Your task to perform on an android device: find photos in the google photos app Image 0: 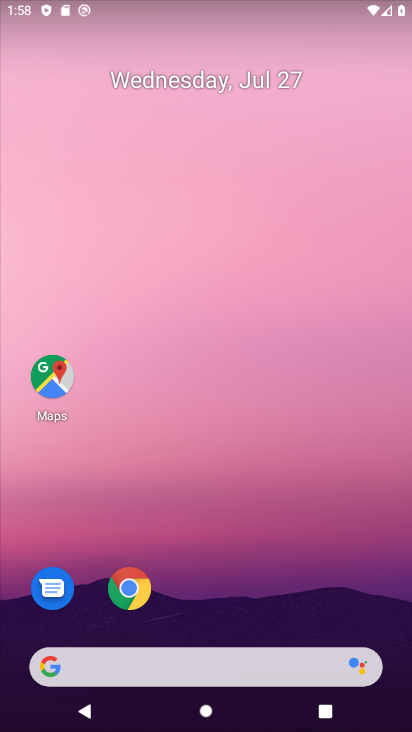
Step 0: drag from (226, 611) to (230, 311)
Your task to perform on an android device: find photos in the google photos app Image 1: 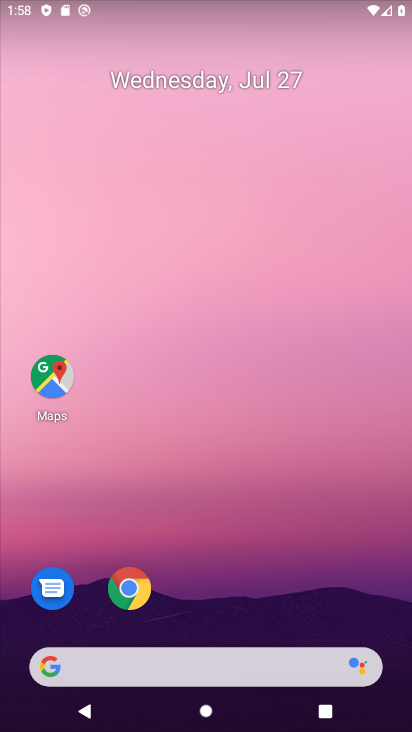
Step 1: drag from (208, 597) to (206, 161)
Your task to perform on an android device: find photos in the google photos app Image 2: 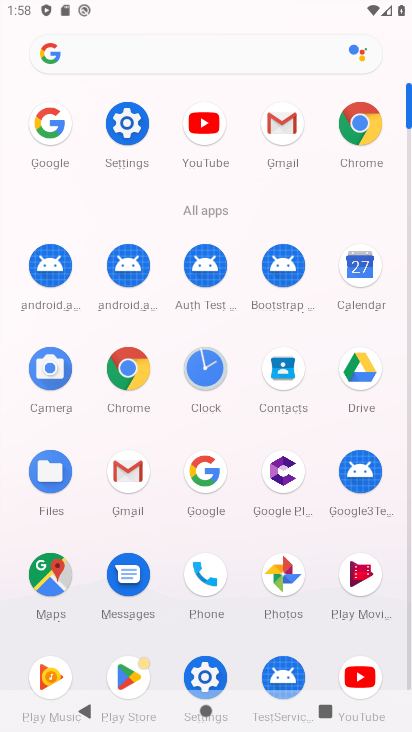
Step 2: click (279, 588)
Your task to perform on an android device: find photos in the google photos app Image 3: 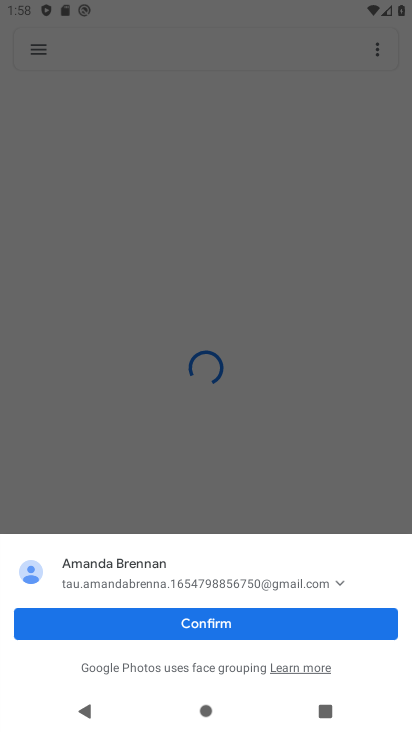
Step 3: click (116, 59)
Your task to perform on an android device: find photos in the google photos app Image 4: 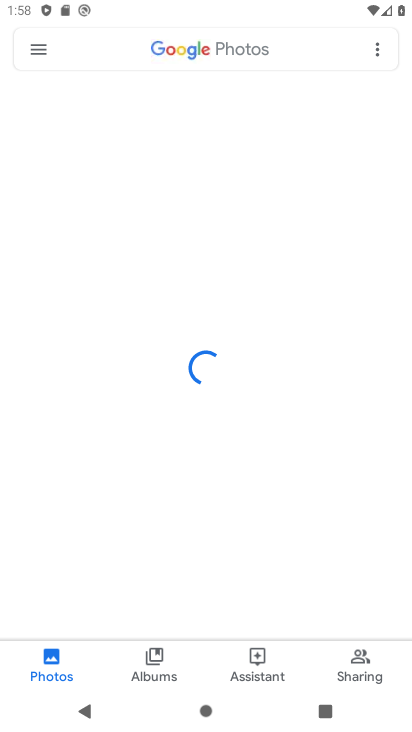
Step 4: click (220, 628)
Your task to perform on an android device: find photos in the google photos app Image 5: 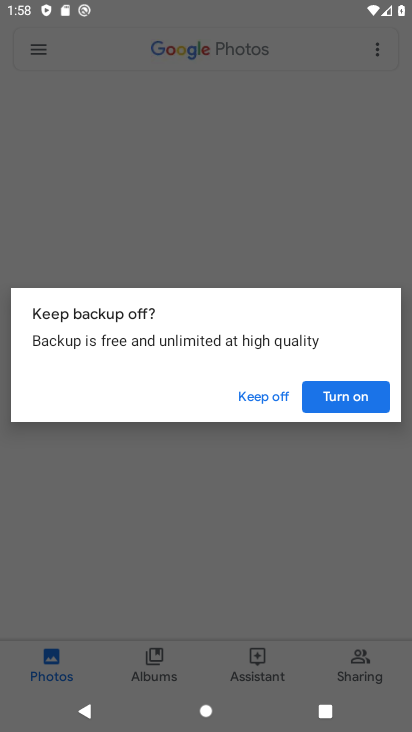
Step 5: click (251, 388)
Your task to perform on an android device: find photos in the google photos app Image 6: 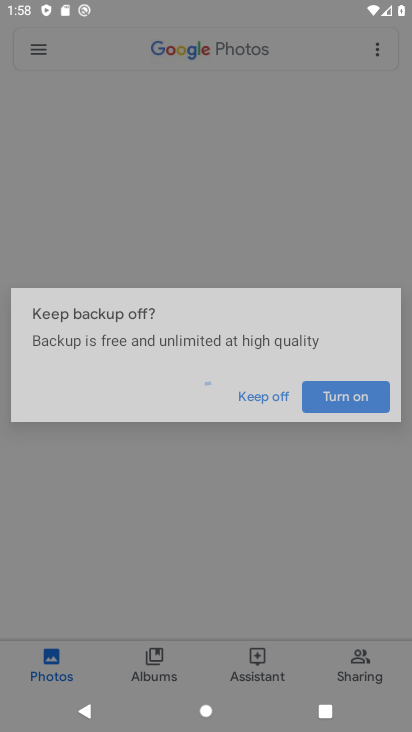
Step 6: click (139, 60)
Your task to perform on an android device: find photos in the google photos app Image 7: 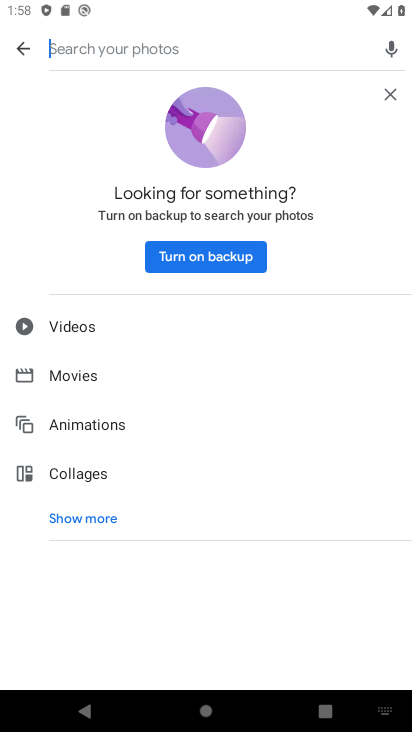
Step 7: type "aa"
Your task to perform on an android device: find photos in the google photos app Image 8: 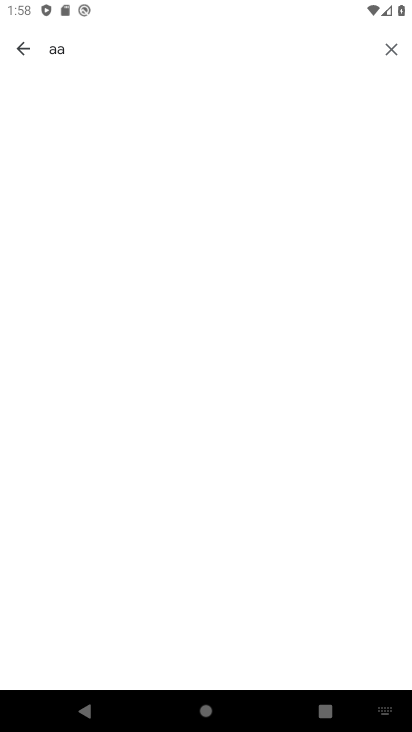
Step 8: task complete